Your task to perform on an android device: check data usage Image 0: 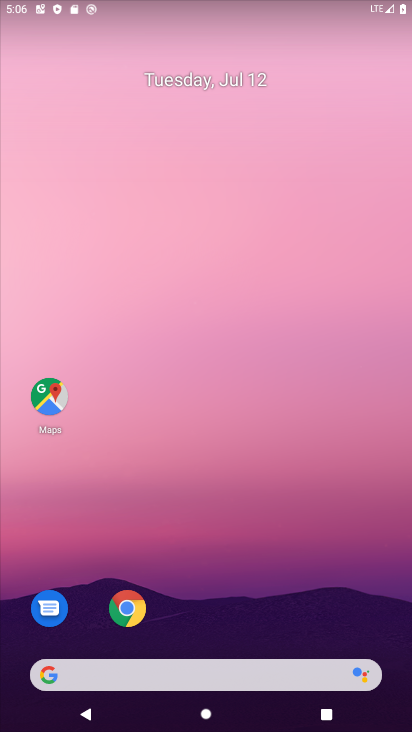
Step 0: drag from (177, 240) to (203, 510)
Your task to perform on an android device: check data usage Image 1: 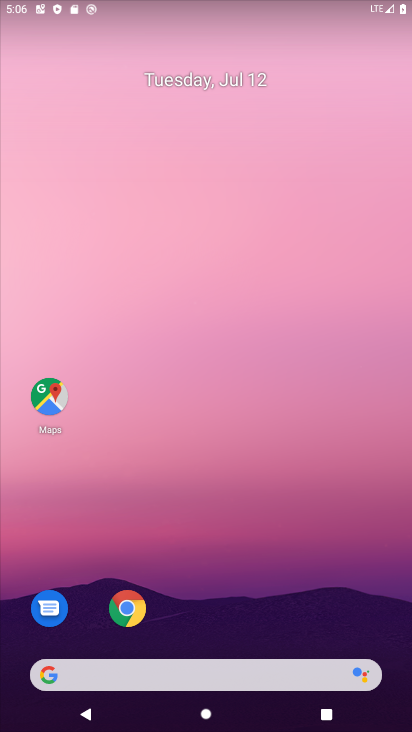
Step 1: drag from (191, 9) to (286, 576)
Your task to perform on an android device: check data usage Image 2: 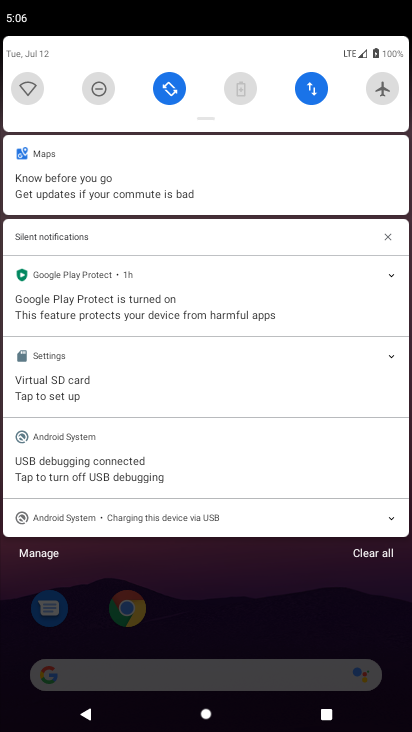
Step 2: click (316, 82)
Your task to perform on an android device: check data usage Image 3: 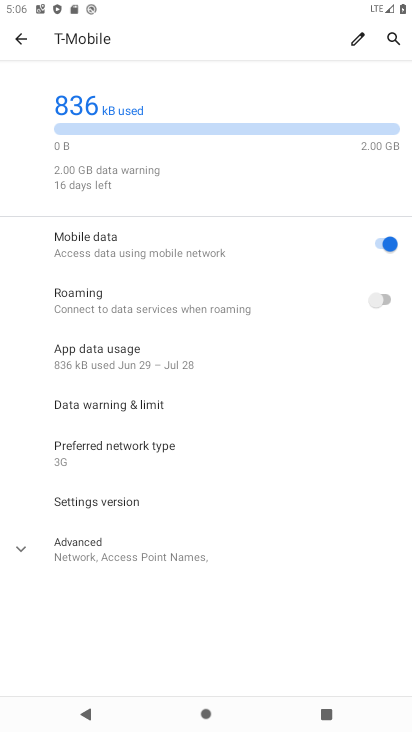
Step 3: task complete